Your task to perform on an android device: Open display settings Image 0: 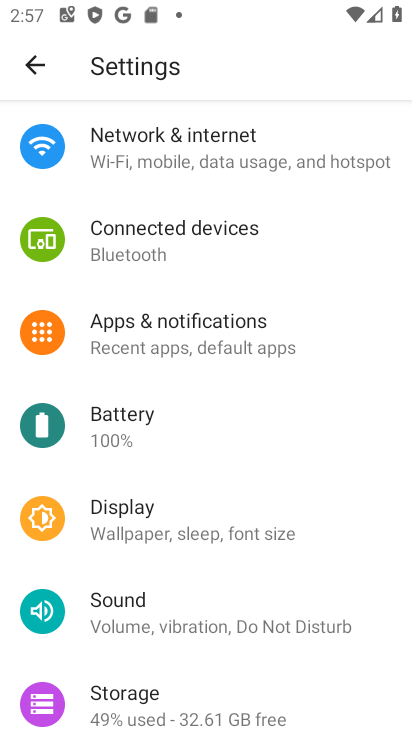
Step 0: click (160, 526)
Your task to perform on an android device: Open display settings Image 1: 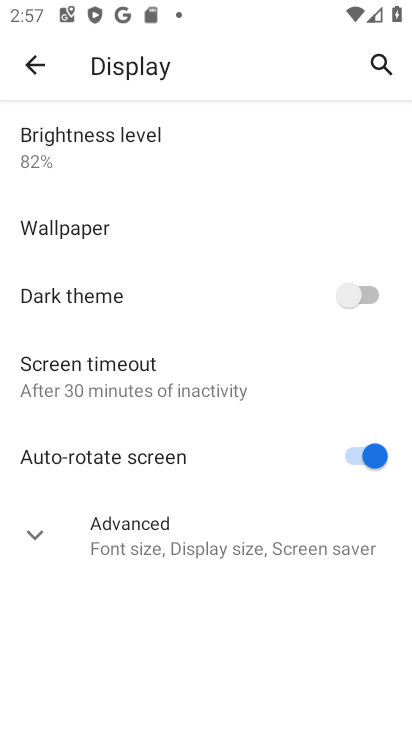
Step 1: click (48, 528)
Your task to perform on an android device: Open display settings Image 2: 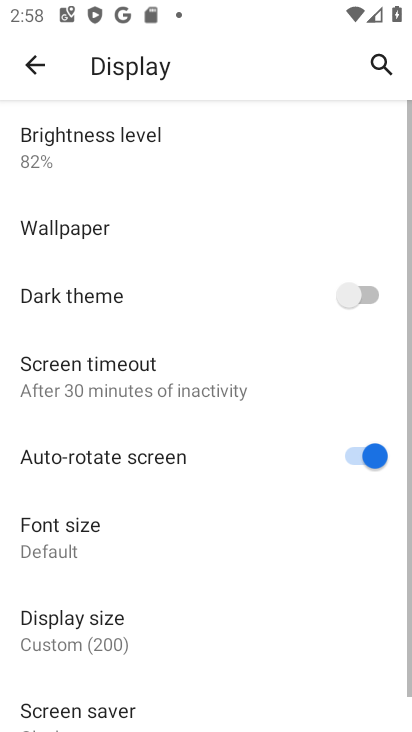
Step 2: task complete